Your task to perform on an android device: Is it going to rain today? Image 0: 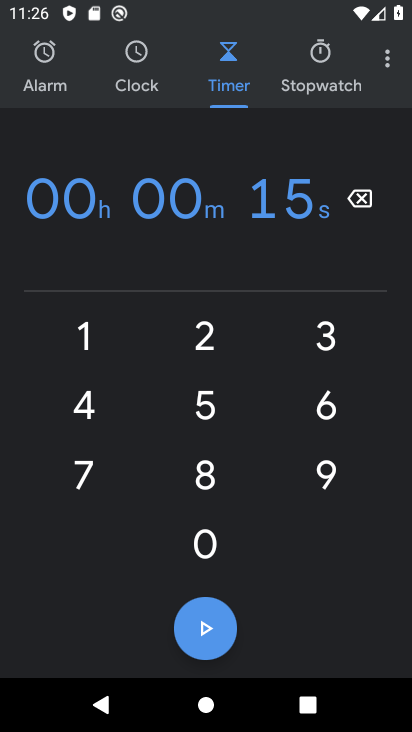
Step 0: press home button
Your task to perform on an android device: Is it going to rain today? Image 1: 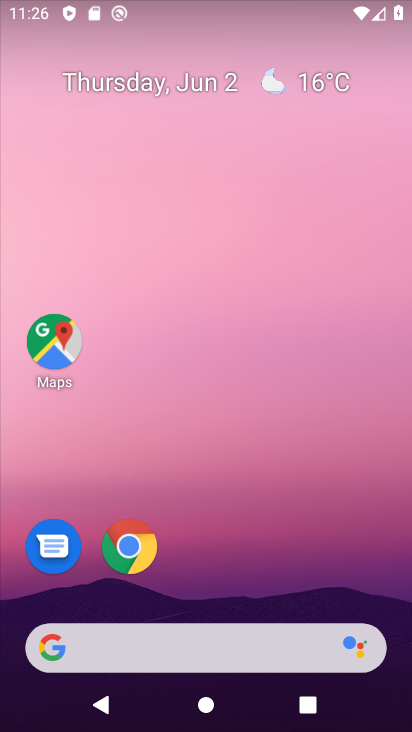
Step 1: drag from (307, 573) to (297, 195)
Your task to perform on an android device: Is it going to rain today? Image 2: 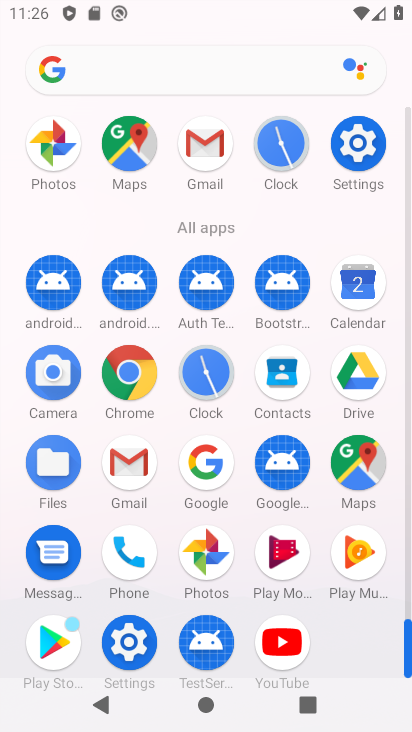
Step 2: click (132, 400)
Your task to perform on an android device: Is it going to rain today? Image 3: 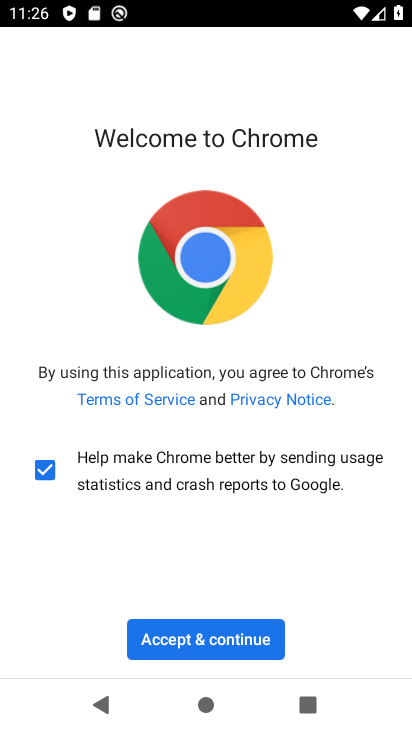
Step 3: click (219, 644)
Your task to perform on an android device: Is it going to rain today? Image 4: 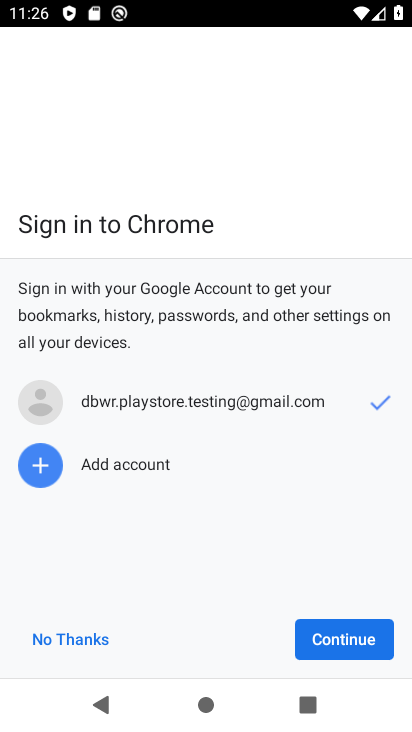
Step 4: click (395, 639)
Your task to perform on an android device: Is it going to rain today? Image 5: 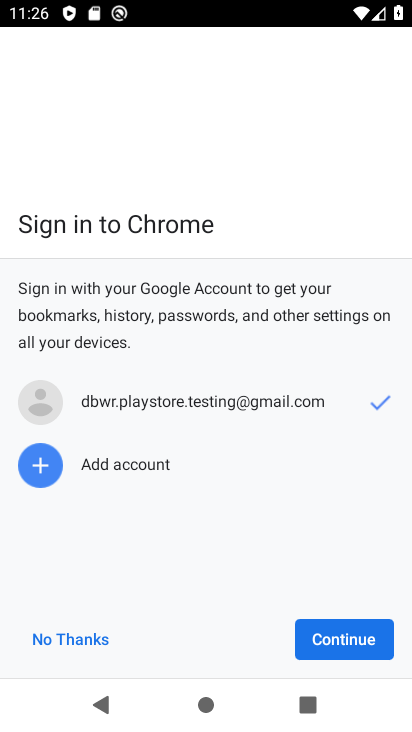
Step 5: click (369, 643)
Your task to perform on an android device: Is it going to rain today? Image 6: 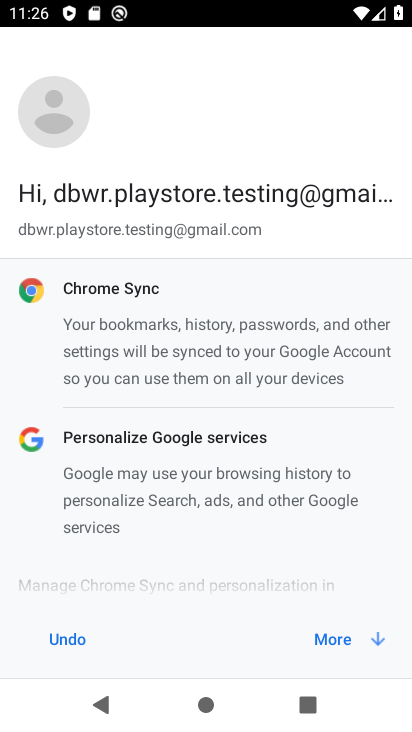
Step 6: click (368, 644)
Your task to perform on an android device: Is it going to rain today? Image 7: 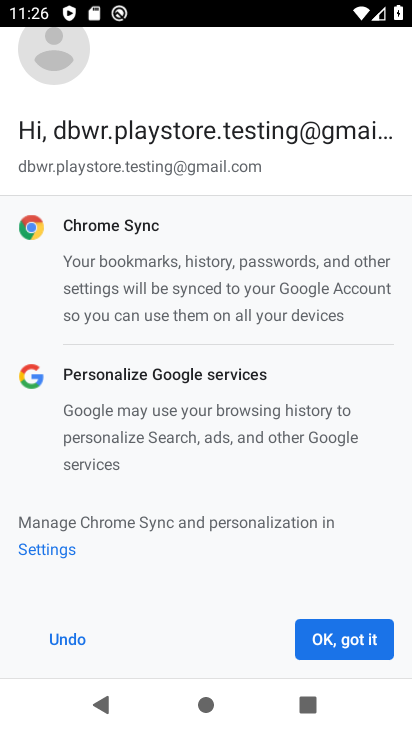
Step 7: click (368, 644)
Your task to perform on an android device: Is it going to rain today? Image 8: 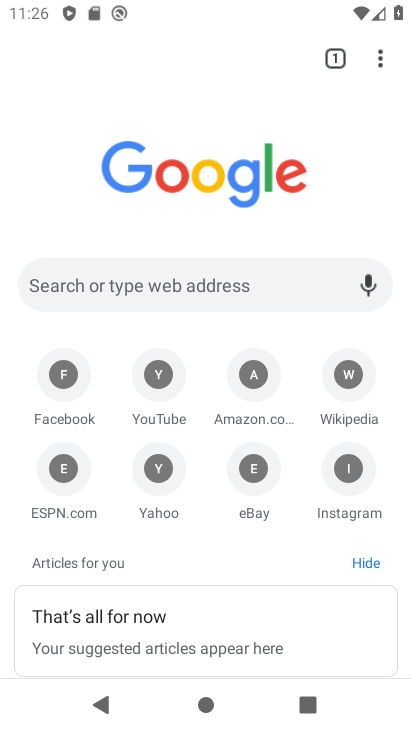
Step 8: click (212, 283)
Your task to perform on an android device: Is it going to rain today? Image 9: 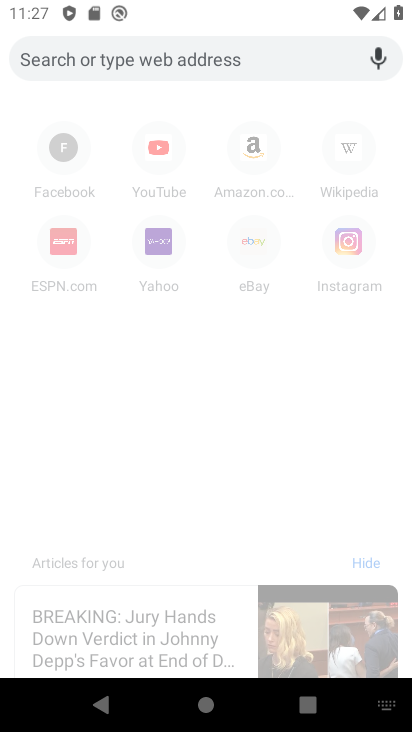
Step 9: type "is it going to rain today"
Your task to perform on an android device: Is it going to rain today? Image 10: 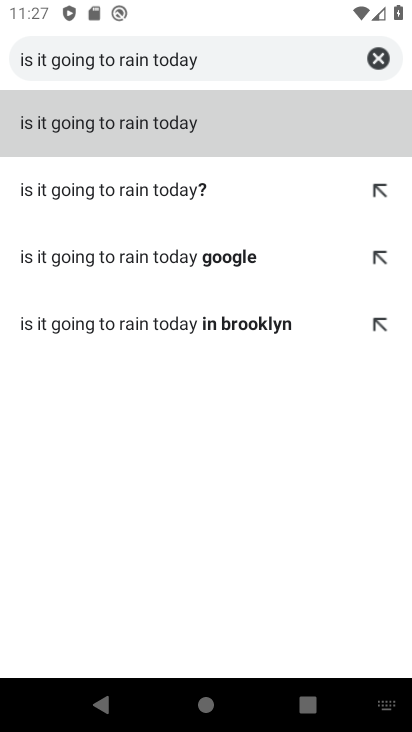
Step 10: click (168, 123)
Your task to perform on an android device: Is it going to rain today? Image 11: 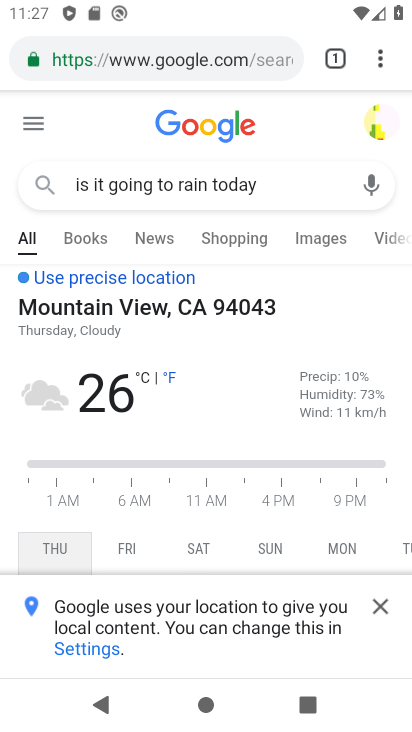
Step 11: task complete